Your task to perform on an android device: turn on the 12-hour format for clock Image 0: 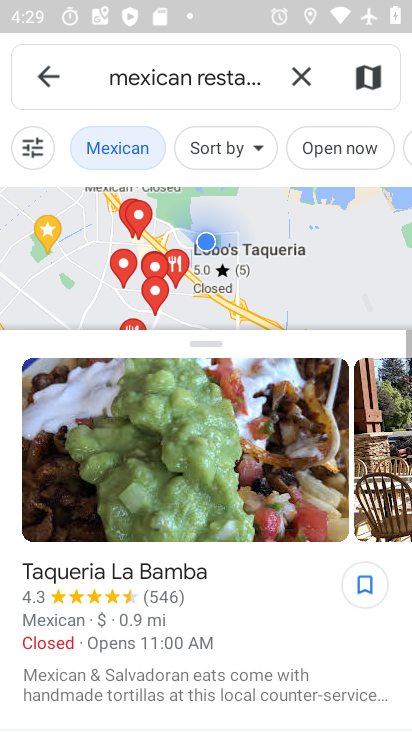
Step 0: drag from (201, 621) to (256, 366)
Your task to perform on an android device: turn on the 12-hour format for clock Image 1: 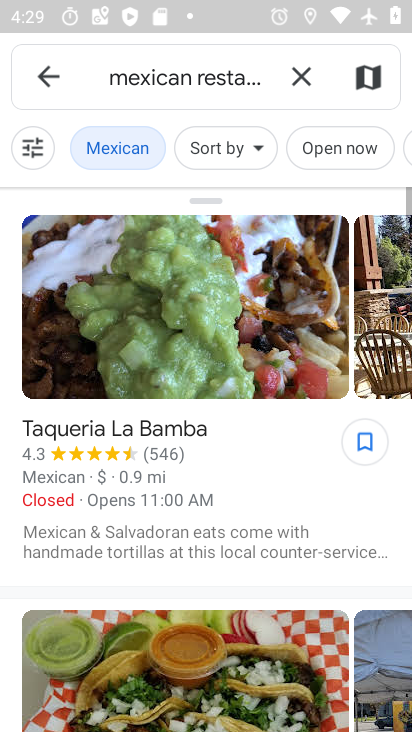
Step 1: press home button
Your task to perform on an android device: turn on the 12-hour format for clock Image 2: 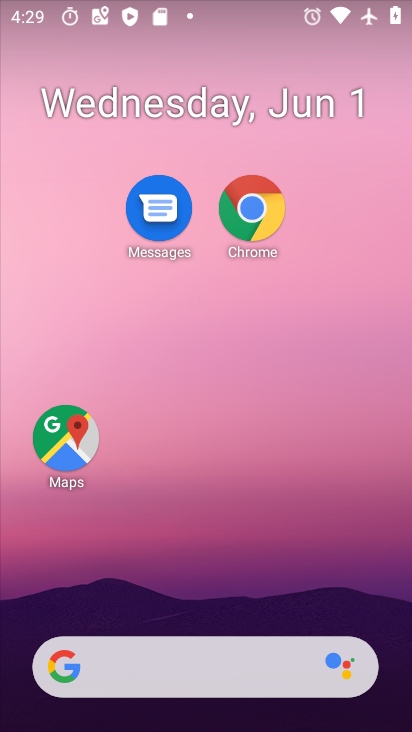
Step 2: drag from (172, 615) to (208, 285)
Your task to perform on an android device: turn on the 12-hour format for clock Image 3: 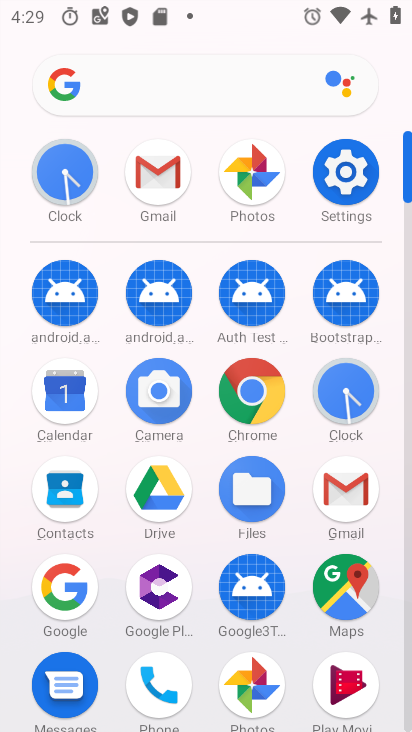
Step 3: click (89, 177)
Your task to perform on an android device: turn on the 12-hour format for clock Image 4: 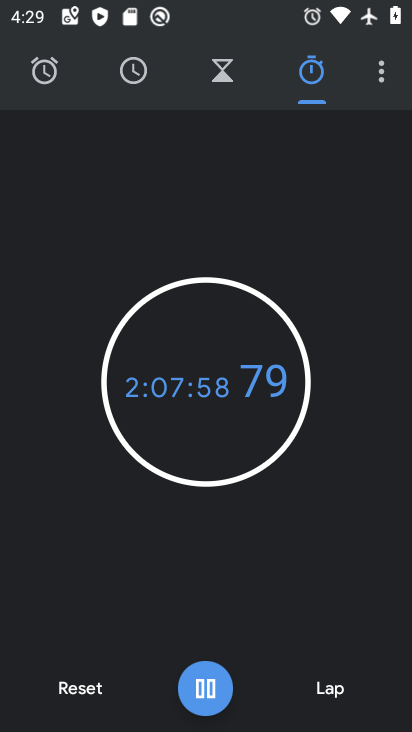
Step 4: click (371, 75)
Your task to perform on an android device: turn on the 12-hour format for clock Image 5: 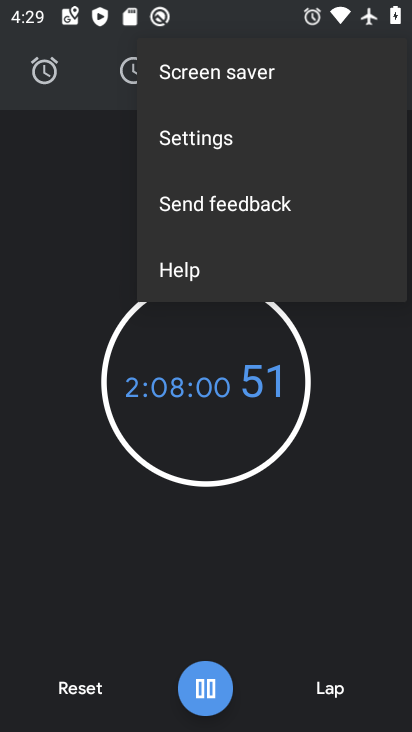
Step 5: click (259, 136)
Your task to perform on an android device: turn on the 12-hour format for clock Image 6: 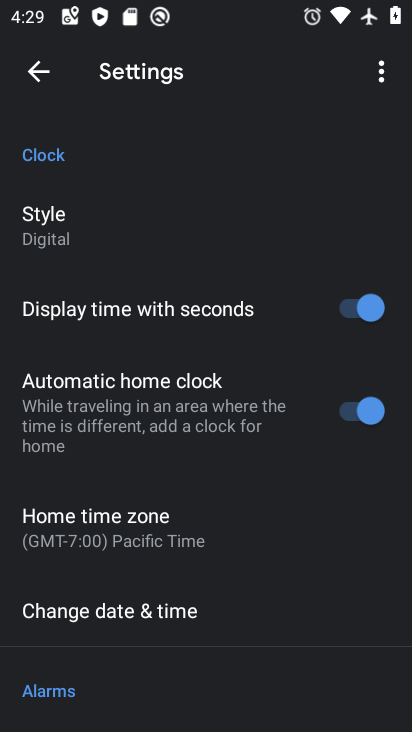
Step 6: click (210, 623)
Your task to perform on an android device: turn on the 12-hour format for clock Image 7: 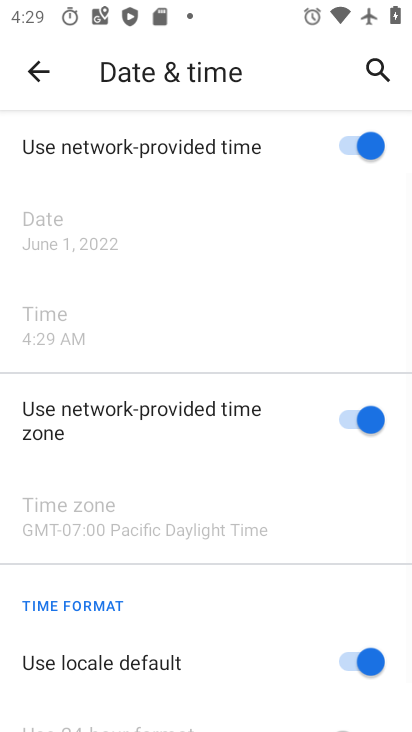
Step 7: task complete